Your task to perform on an android device: turn on notifications settings in the gmail app Image 0: 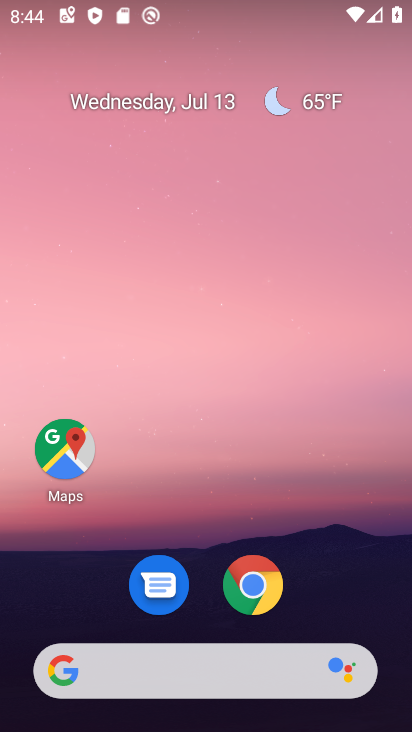
Step 0: drag from (218, 527) to (207, 45)
Your task to perform on an android device: turn on notifications settings in the gmail app Image 1: 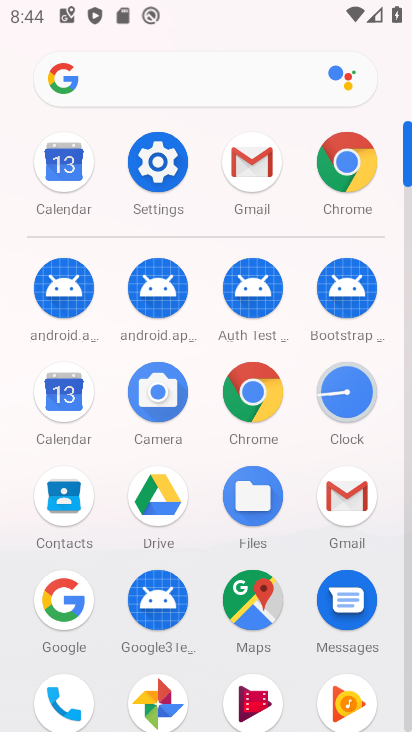
Step 1: click (252, 169)
Your task to perform on an android device: turn on notifications settings in the gmail app Image 2: 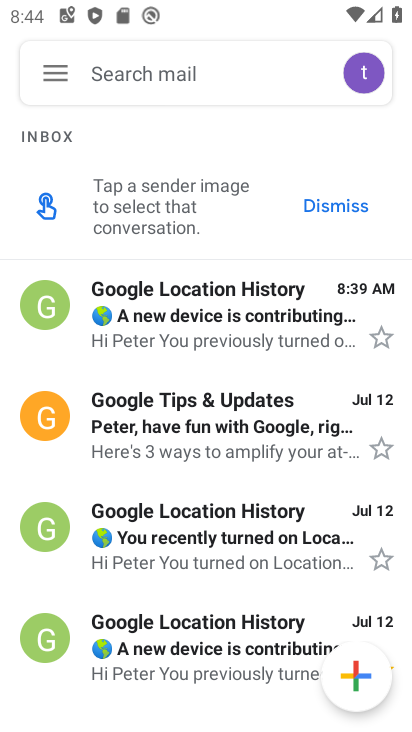
Step 2: click (54, 75)
Your task to perform on an android device: turn on notifications settings in the gmail app Image 3: 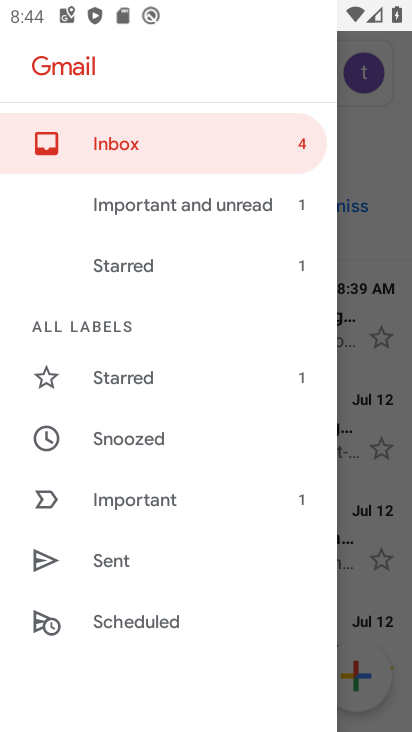
Step 3: drag from (147, 554) to (215, 2)
Your task to perform on an android device: turn on notifications settings in the gmail app Image 4: 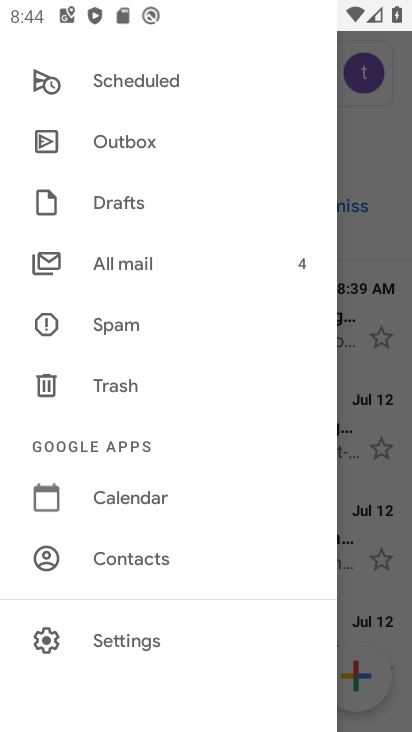
Step 4: click (147, 638)
Your task to perform on an android device: turn on notifications settings in the gmail app Image 5: 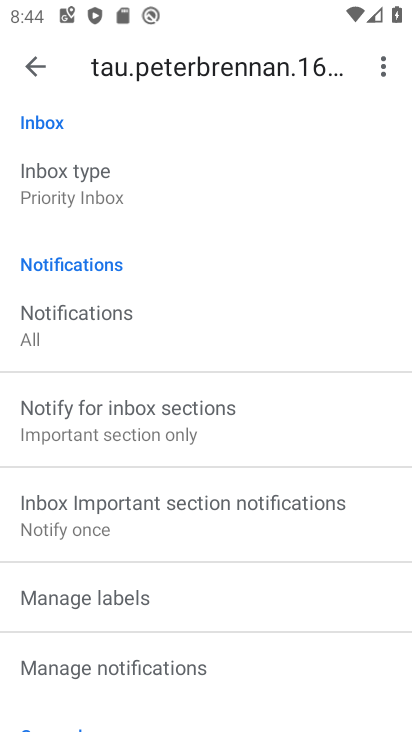
Step 5: drag from (248, 448) to (284, 220)
Your task to perform on an android device: turn on notifications settings in the gmail app Image 6: 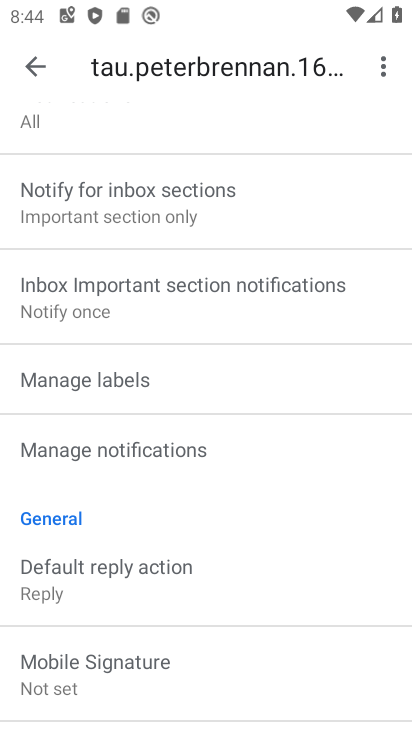
Step 6: click (207, 441)
Your task to perform on an android device: turn on notifications settings in the gmail app Image 7: 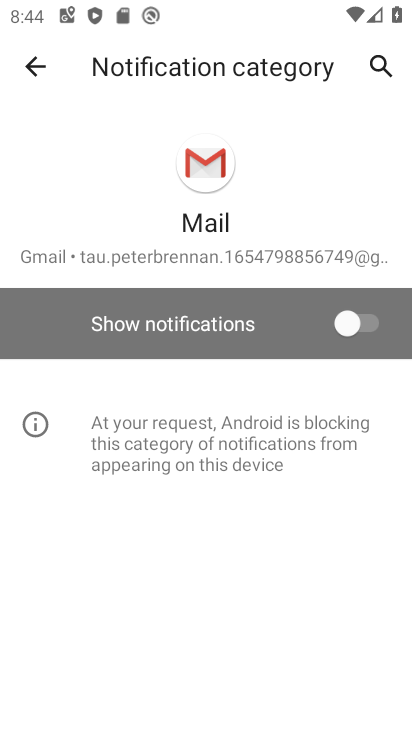
Step 7: click (367, 334)
Your task to perform on an android device: turn on notifications settings in the gmail app Image 8: 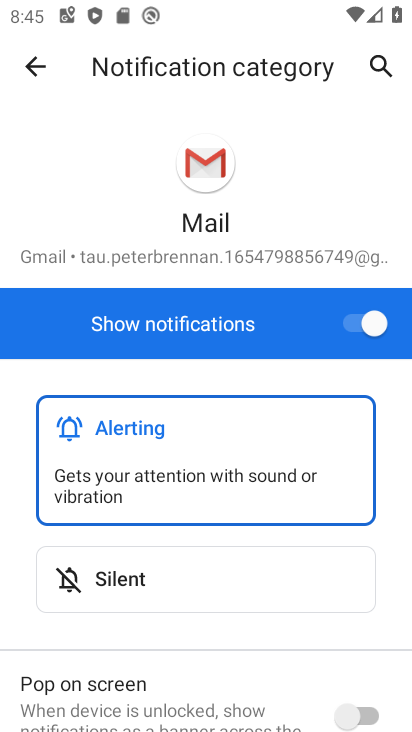
Step 8: task complete